Your task to perform on an android device: delete location history Image 0: 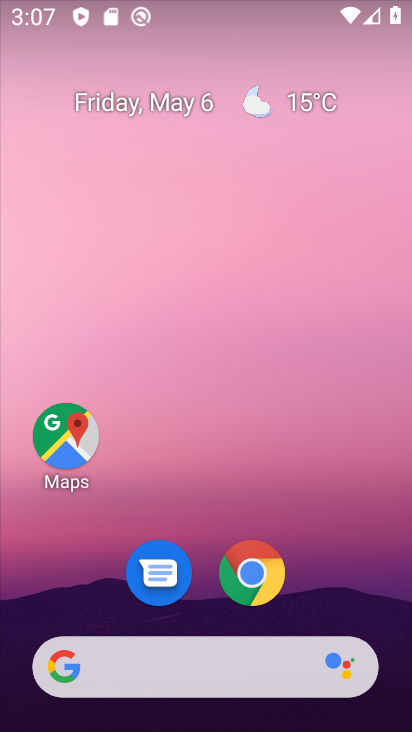
Step 0: drag from (229, 267) to (232, 143)
Your task to perform on an android device: delete location history Image 1: 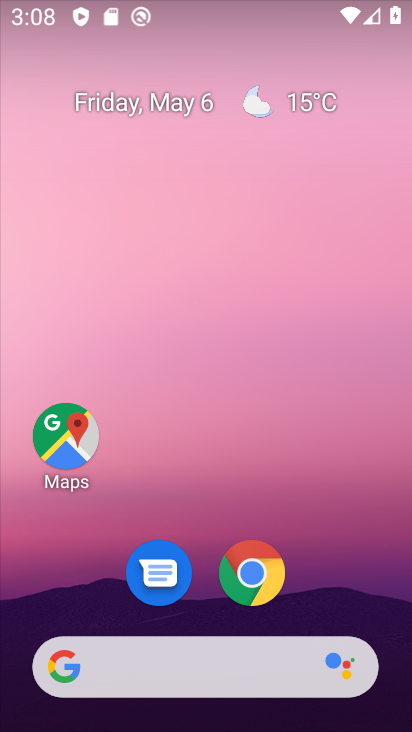
Step 1: drag from (196, 576) to (192, 209)
Your task to perform on an android device: delete location history Image 2: 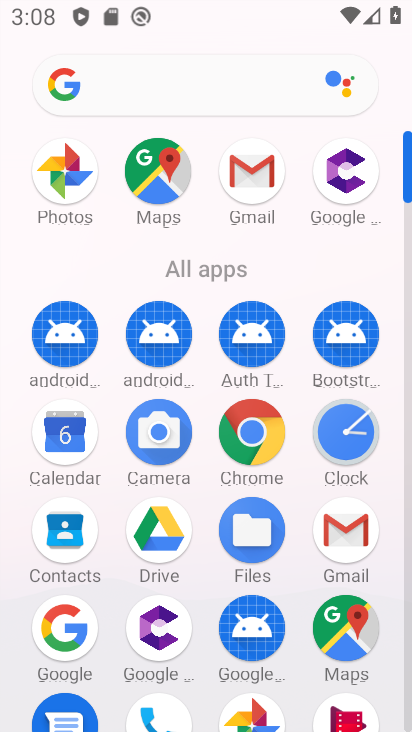
Step 2: drag from (198, 594) to (216, 263)
Your task to perform on an android device: delete location history Image 3: 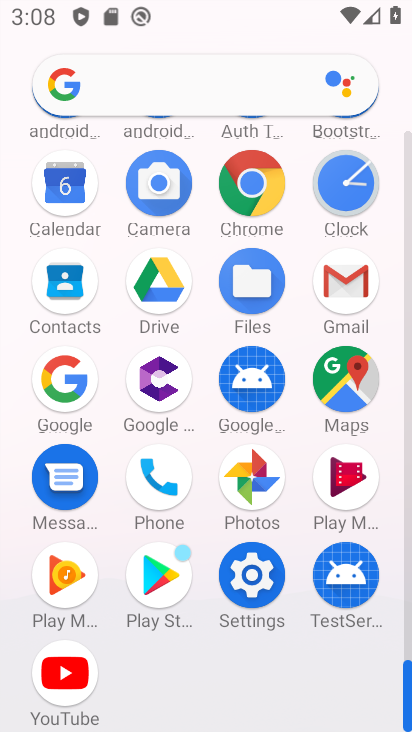
Step 3: click (251, 573)
Your task to perform on an android device: delete location history Image 4: 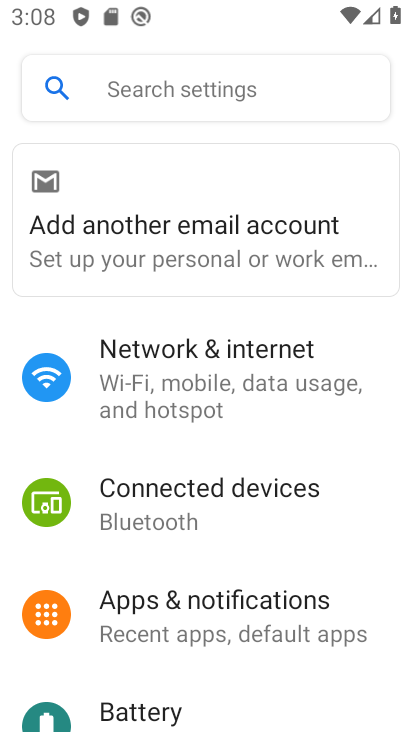
Step 4: drag from (250, 675) to (282, 316)
Your task to perform on an android device: delete location history Image 5: 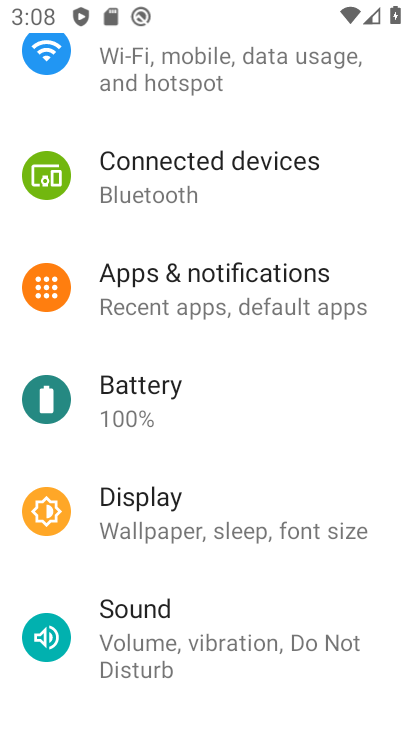
Step 5: drag from (242, 641) to (312, 459)
Your task to perform on an android device: delete location history Image 6: 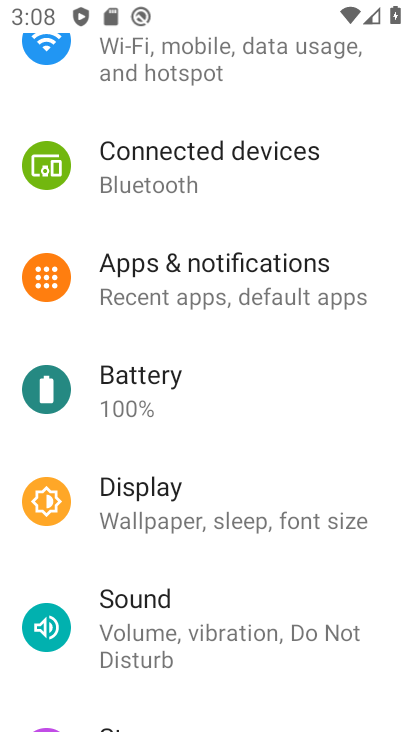
Step 6: drag from (275, 266) to (305, 636)
Your task to perform on an android device: delete location history Image 7: 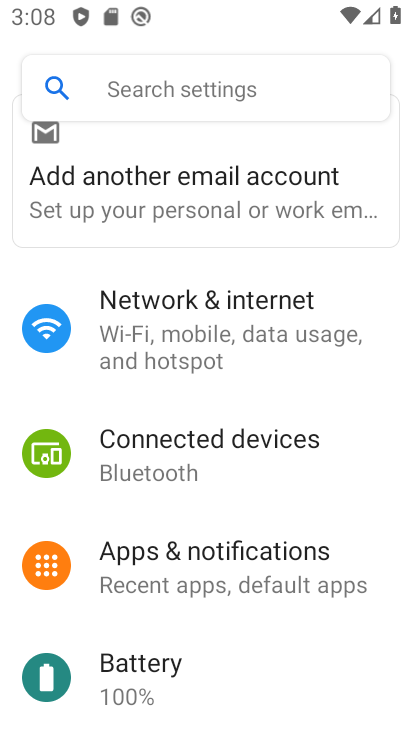
Step 7: drag from (185, 657) to (248, 228)
Your task to perform on an android device: delete location history Image 8: 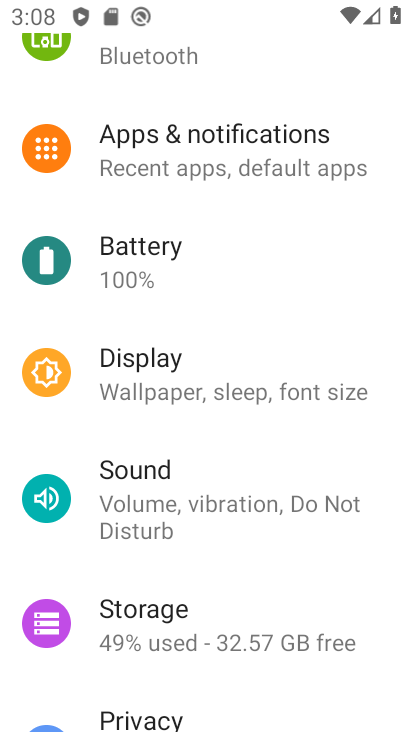
Step 8: drag from (214, 687) to (254, 259)
Your task to perform on an android device: delete location history Image 9: 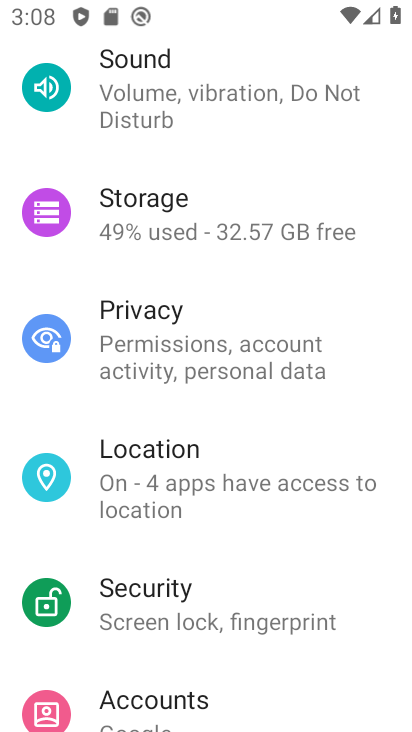
Step 9: click (176, 483)
Your task to perform on an android device: delete location history Image 10: 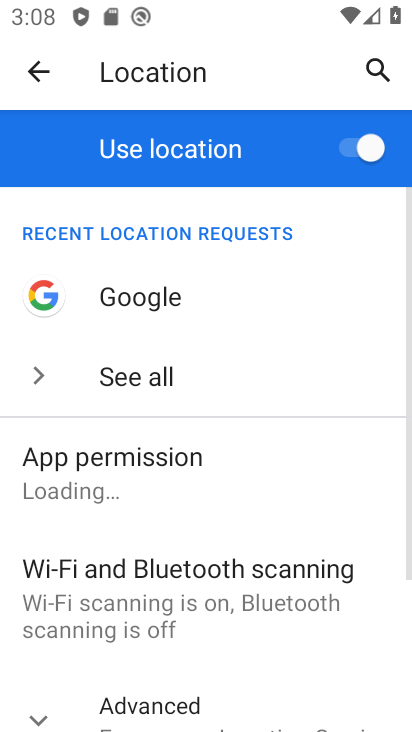
Step 10: drag from (154, 658) to (176, 473)
Your task to perform on an android device: delete location history Image 11: 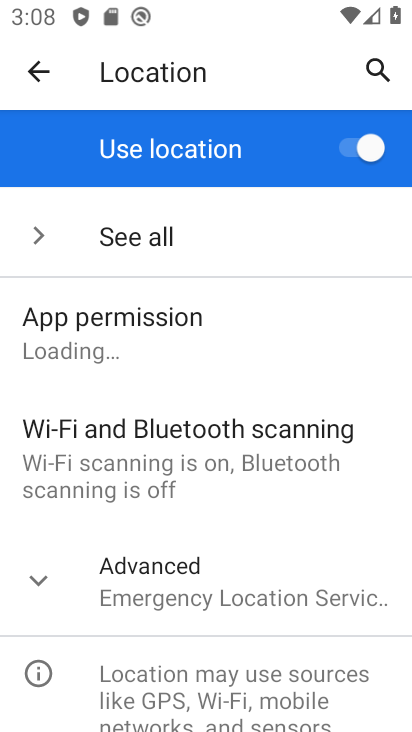
Step 11: click (137, 584)
Your task to perform on an android device: delete location history Image 12: 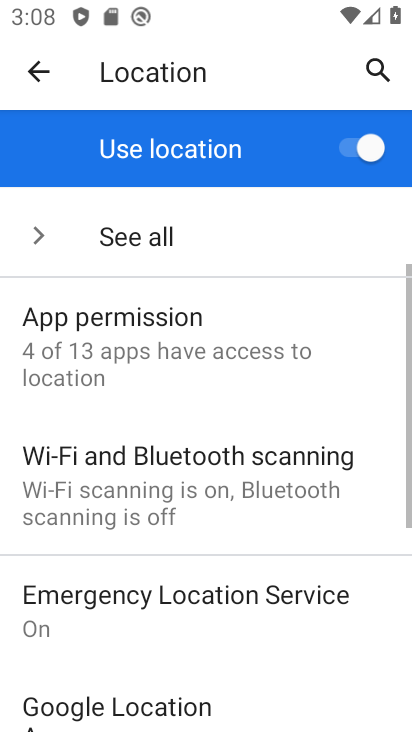
Step 12: drag from (264, 644) to (255, 199)
Your task to perform on an android device: delete location history Image 13: 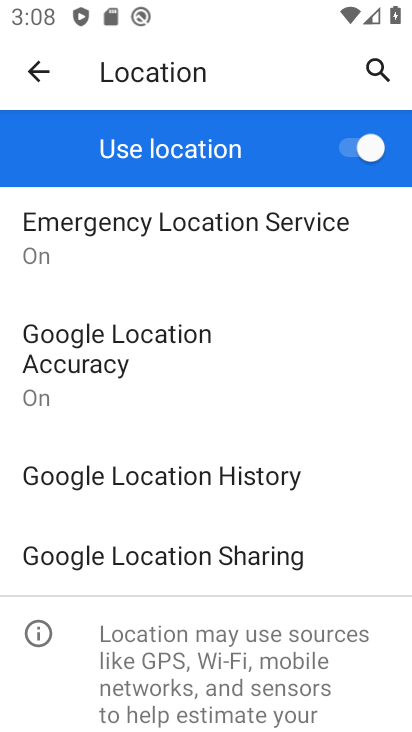
Step 13: click (145, 494)
Your task to perform on an android device: delete location history Image 14: 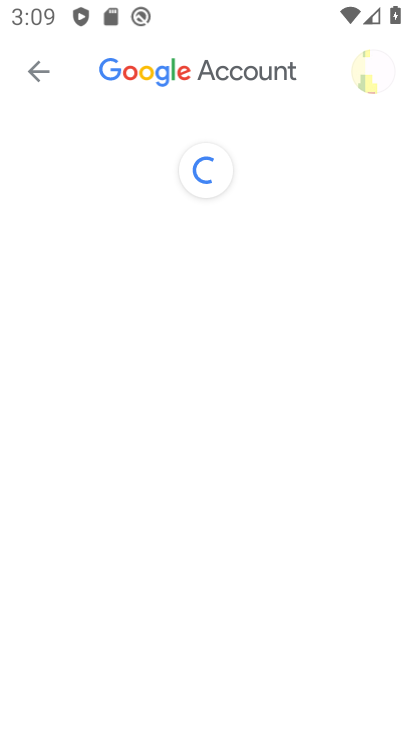
Step 14: drag from (254, 607) to (294, 210)
Your task to perform on an android device: delete location history Image 15: 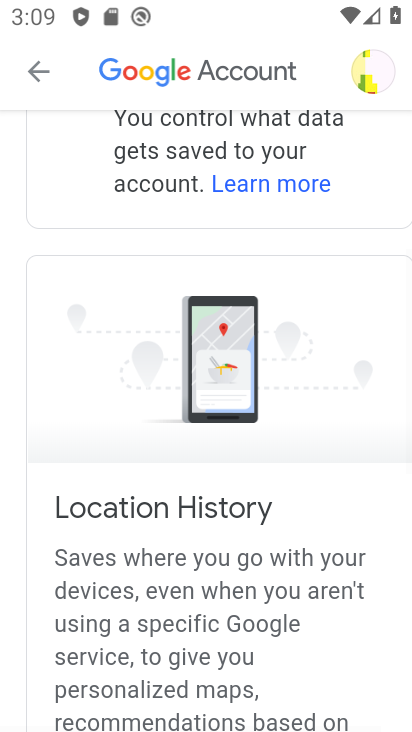
Step 15: drag from (224, 648) to (231, 319)
Your task to perform on an android device: delete location history Image 16: 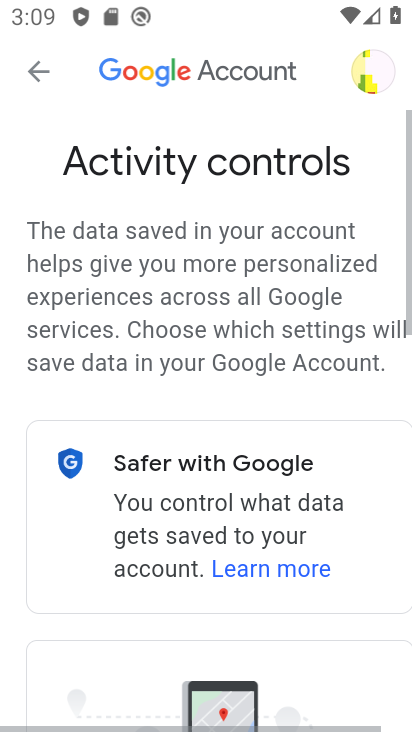
Step 16: drag from (208, 481) to (219, 184)
Your task to perform on an android device: delete location history Image 17: 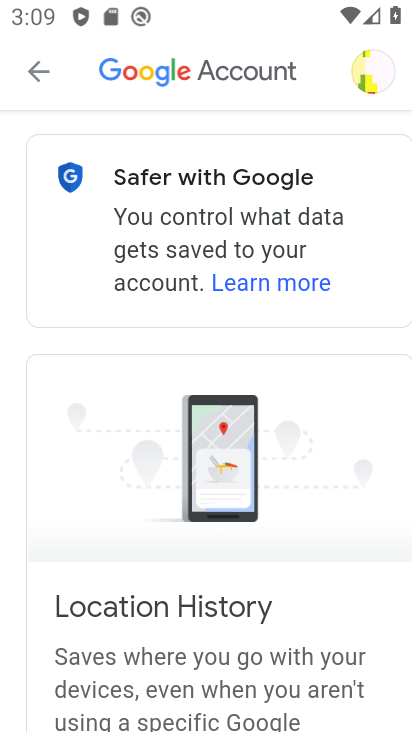
Step 17: drag from (214, 572) to (217, 242)
Your task to perform on an android device: delete location history Image 18: 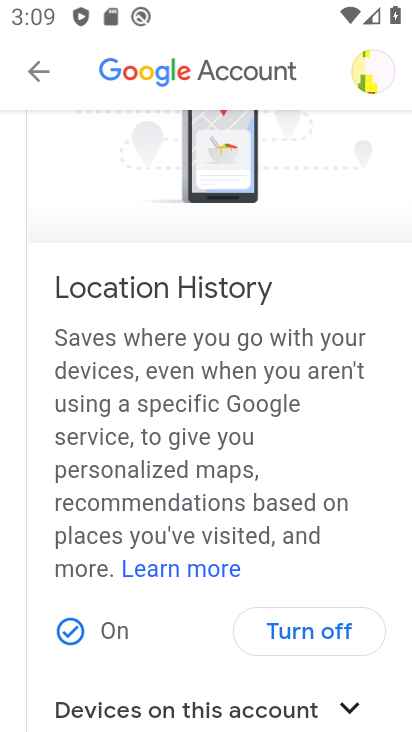
Step 18: drag from (236, 574) to (279, 283)
Your task to perform on an android device: delete location history Image 19: 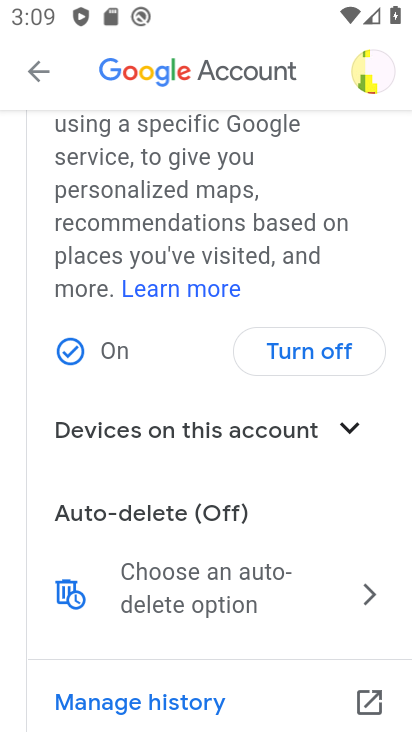
Step 19: drag from (237, 556) to (254, 217)
Your task to perform on an android device: delete location history Image 20: 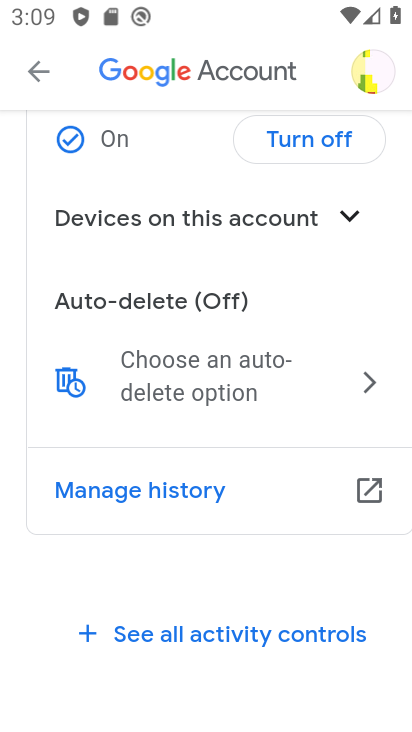
Step 20: click (83, 376)
Your task to perform on an android device: delete location history Image 21: 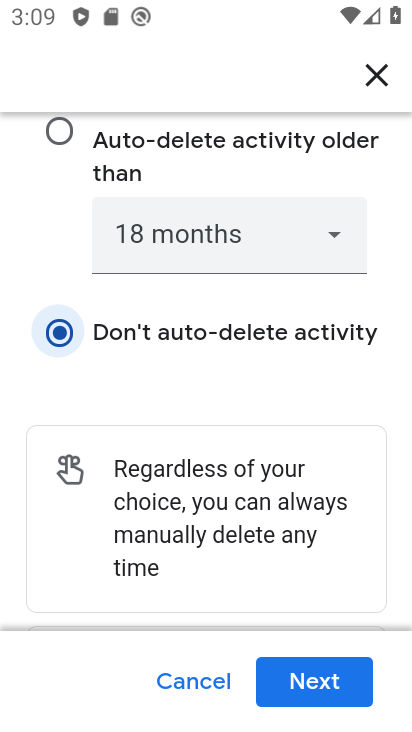
Step 21: click (306, 710)
Your task to perform on an android device: delete location history Image 22: 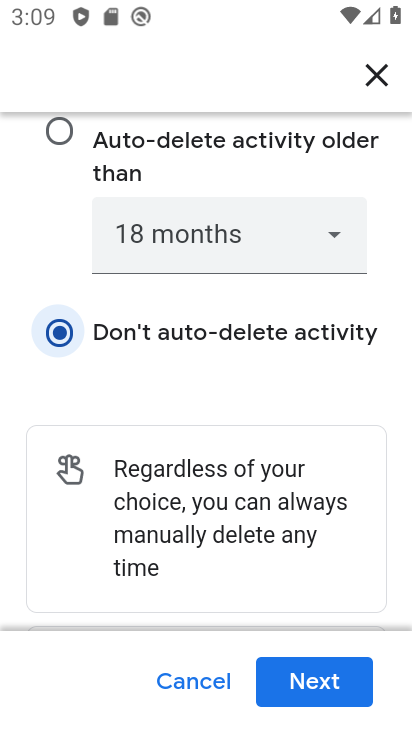
Step 22: click (308, 703)
Your task to perform on an android device: delete location history Image 23: 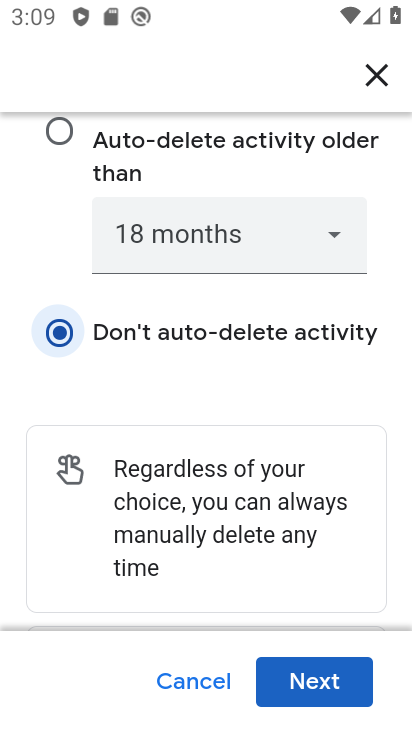
Step 23: click (312, 698)
Your task to perform on an android device: delete location history Image 24: 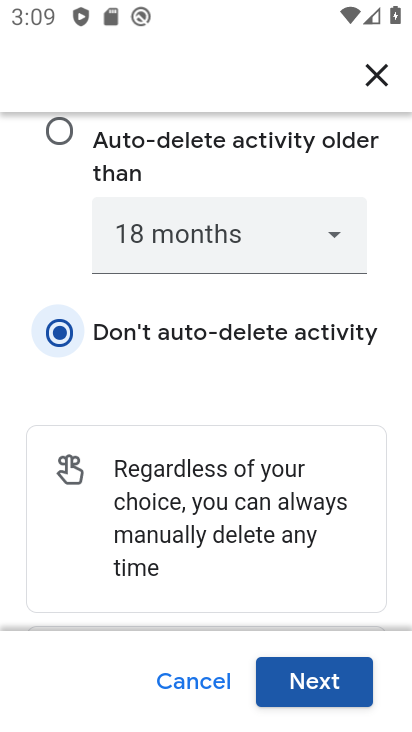
Step 24: click (316, 695)
Your task to perform on an android device: delete location history Image 25: 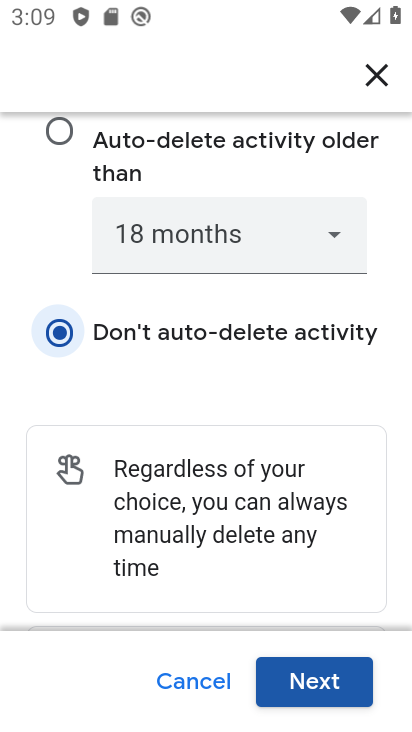
Step 25: click (324, 683)
Your task to perform on an android device: delete location history Image 26: 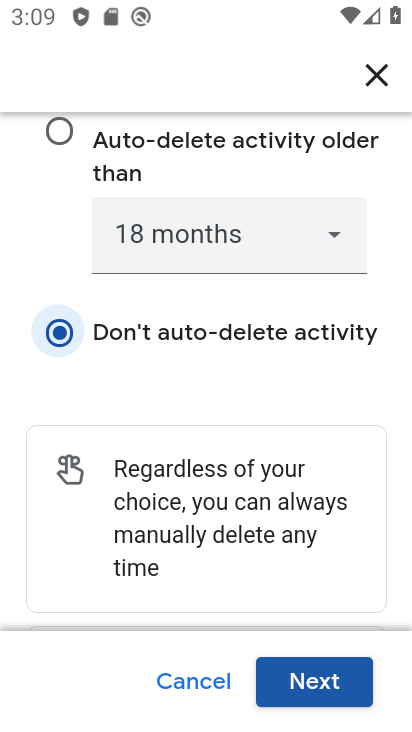
Step 26: click (324, 682)
Your task to perform on an android device: delete location history Image 27: 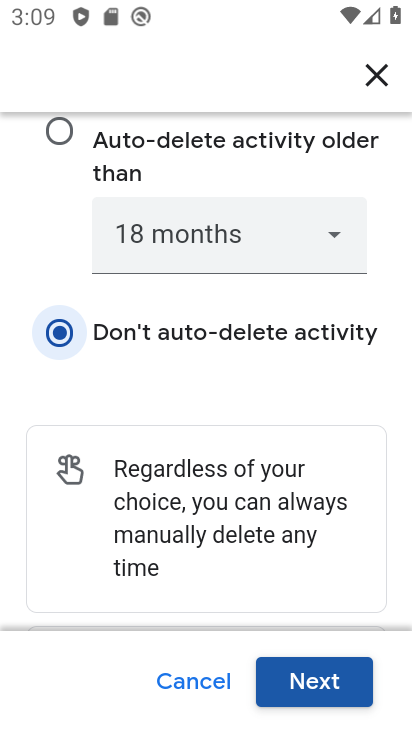
Step 27: click (335, 665)
Your task to perform on an android device: delete location history Image 28: 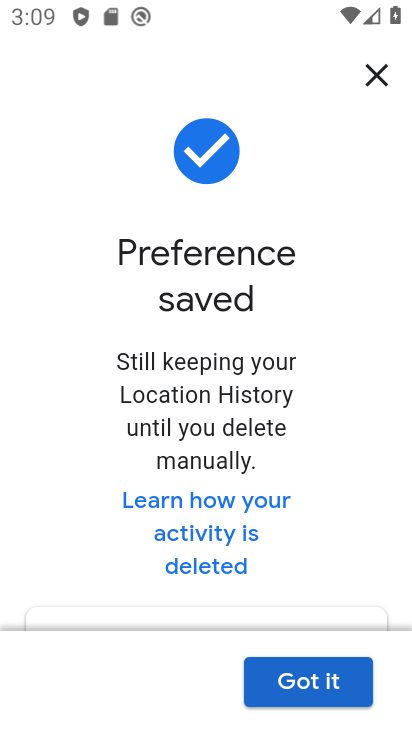
Step 28: click (325, 685)
Your task to perform on an android device: delete location history Image 29: 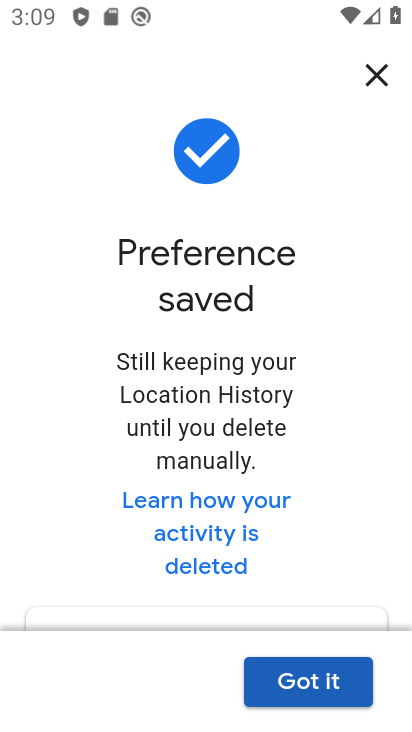
Step 29: click (284, 711)
Your task to perform on an android device: delete location history Image 30: 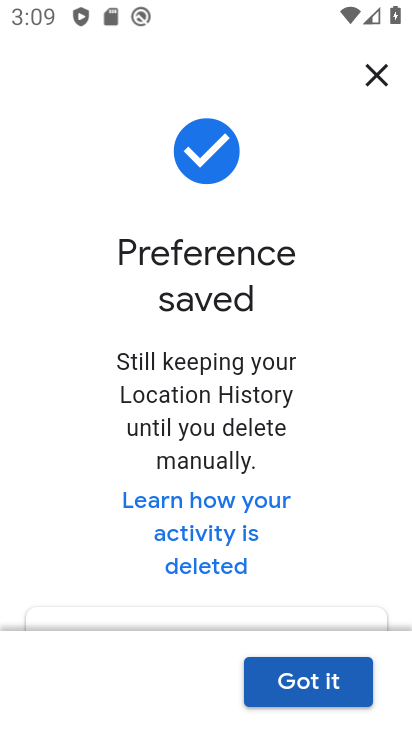
Step 30: click (295, 705)
Your task to perform on an android device: delete location history Image 31: 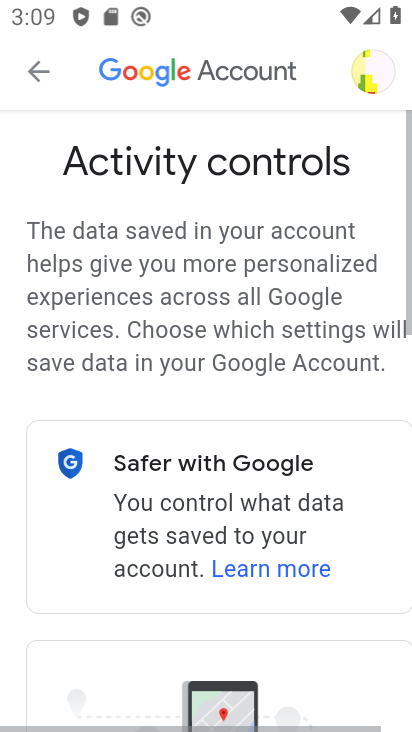
Step 31: task complete